Your task to perform on an android device: Search for sushi restaurants on Maps Image 0: 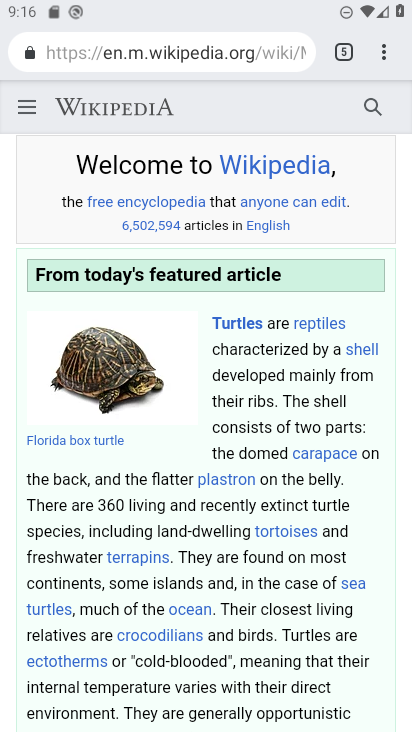
Step 0: press home button
Your task to perform on an android device: Search for sushi restaurants on Maps Image 1: 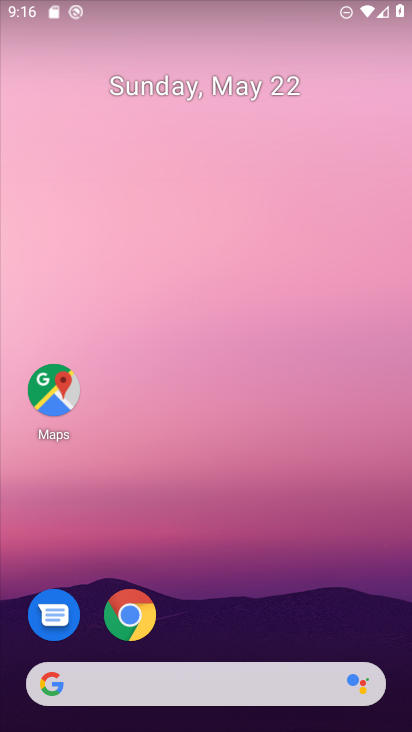
Step 1: click (48, 382)
Your task to perform on an android device: Search for sushi restaurants on Maps Image 2: 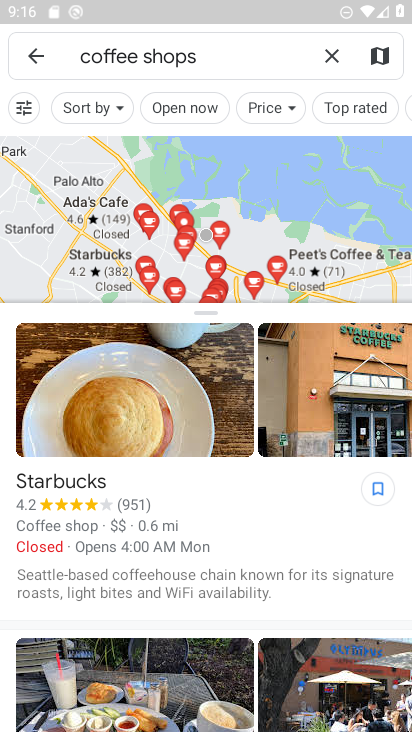
Step 2: click (325, 54)
Your task to perform on an android device: Search for sushi restaurants on Maps Image 3: 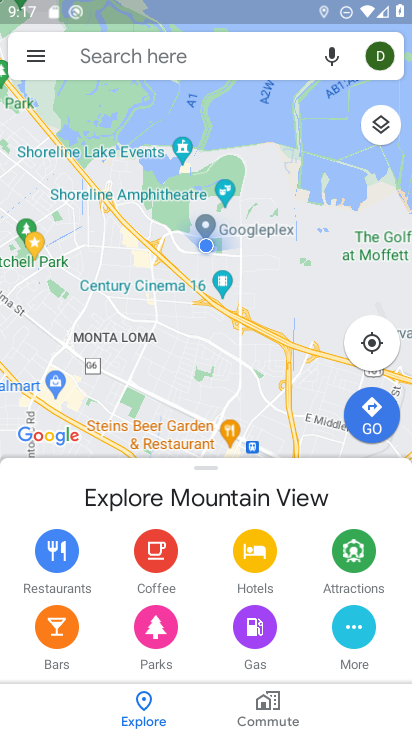
Step 3: click (155, 47)
Your task to perform on an android device: Search for sushi restaurants on Maps Image 4: 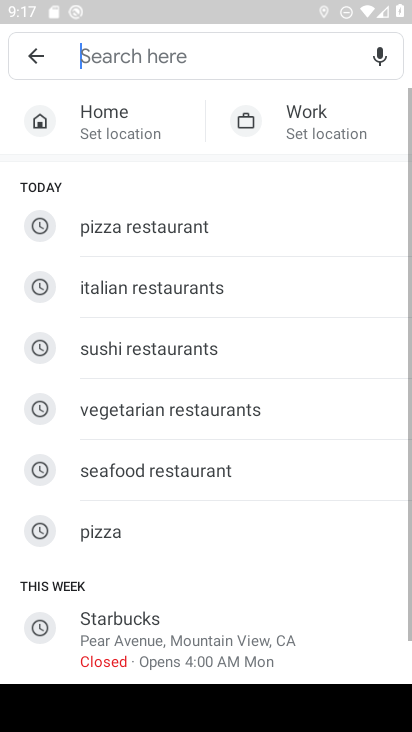
Step 4: type " sushi restaurants"
Your task to perform on an android device: Search for sushi restaurants on Maps Image 5: 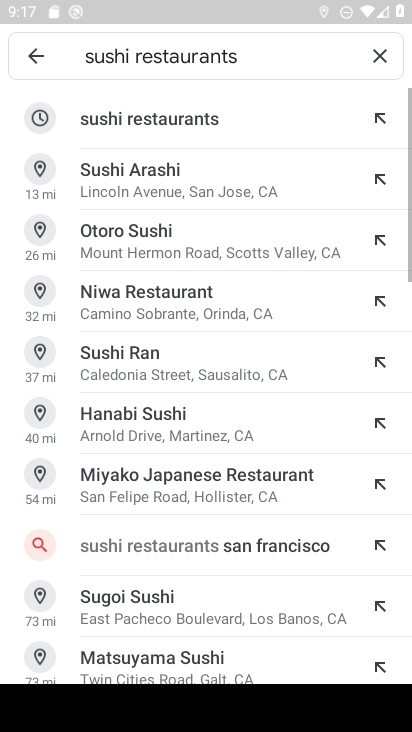
Step 5: click (127, 118)
Your task to perform on an android device: Search for sushi restaurants on Maps Image 6: 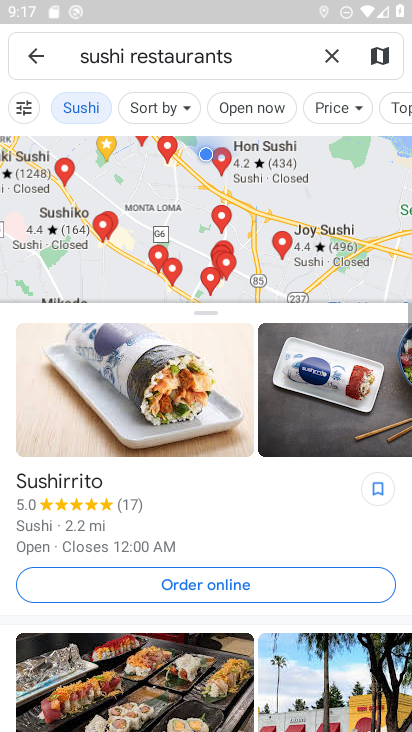
Step 6: task complete